Your task to perform on an android device: Open the contacts Image 0: 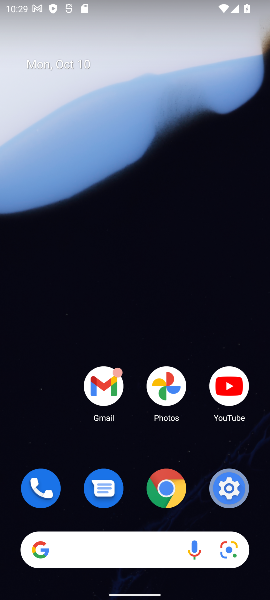
Step 0: drag from (141, 523) to (95, 26)
Your task to perform on an android device: Open the contacts Image 1: 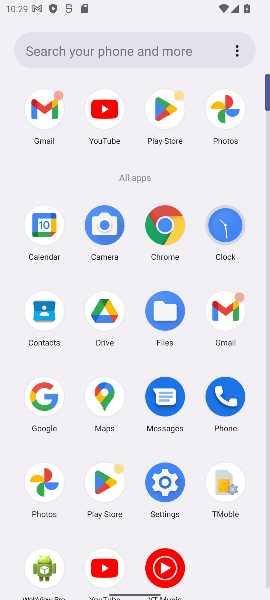
Step 1: click (38, 312)
Your task to perform on an android device: Open the contacts Image 2: 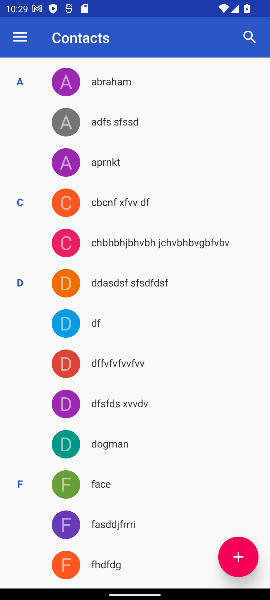
Step 2: task complete